Your task to perform on an android device: Open Google Maps Image 0: 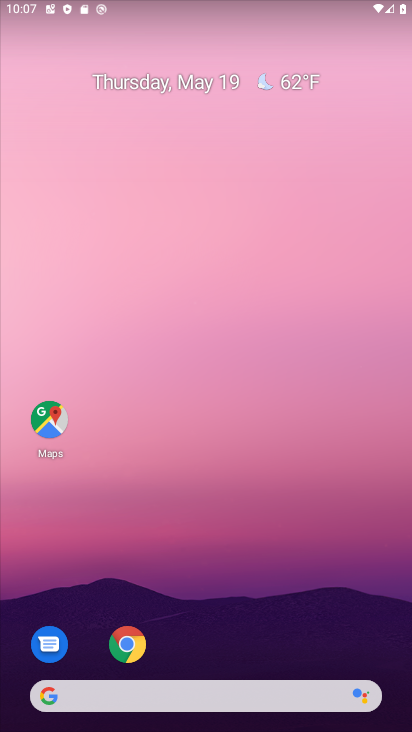
Step 0: drag from (287, 617) to (225, 187)
Your task to perform on an android device: Open Google Maps Image 1: 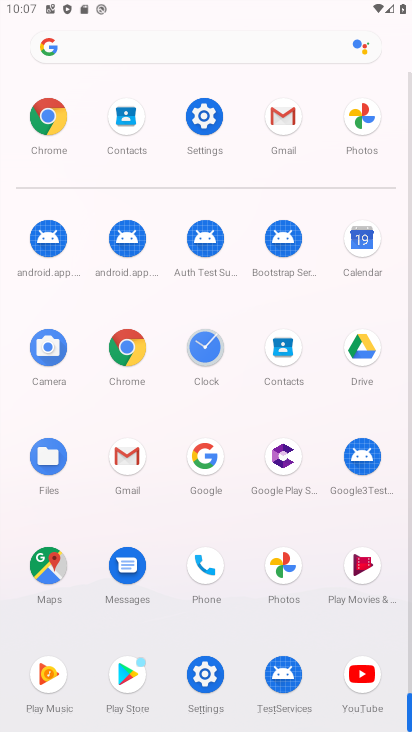
Step 1: click (277, 554)
Your task to perform on an android device: Open Google Maps Image 2: 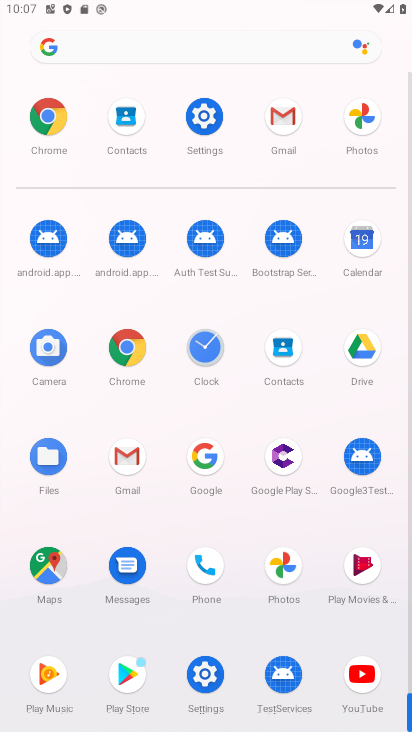
Step 2: click (277, 554)
Your task to perform on an android device: Open Google Maps Image 3: 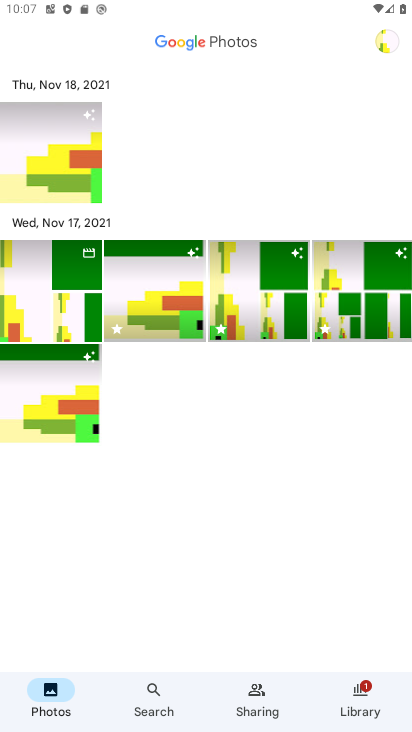
Step 3: press back button
Your task to perform on an android device: Open Google Maps Image 4: 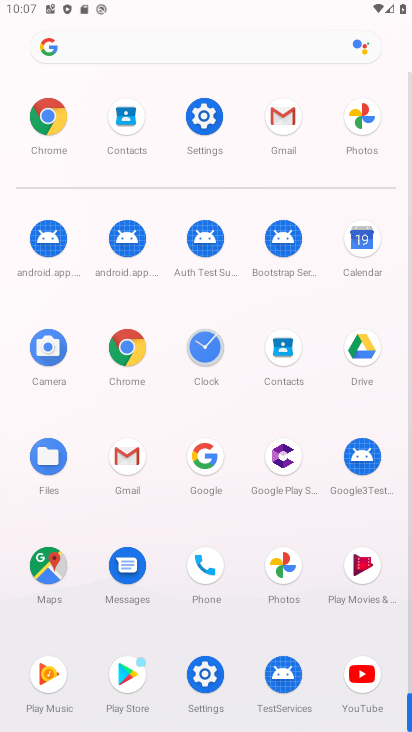
Step 4: click (42, 566)
Your task to perform on an android device: Open Google Maps Image 5: 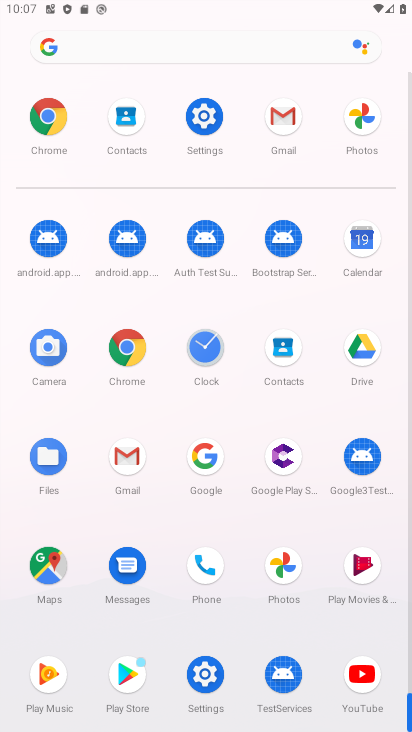
Step 5: drag from (42, 566) to (22, 521)
Your task to perform on an android device: Open Google Maps Image 6: 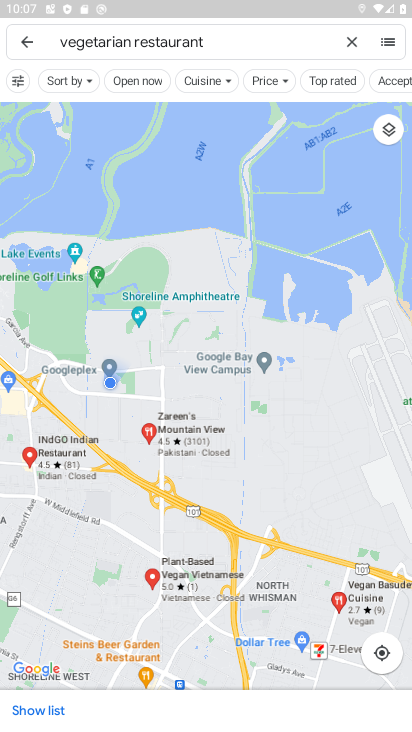
Step 6: click (361, 44)
Your task to perform on an android device: Open Google Maps Image 7: 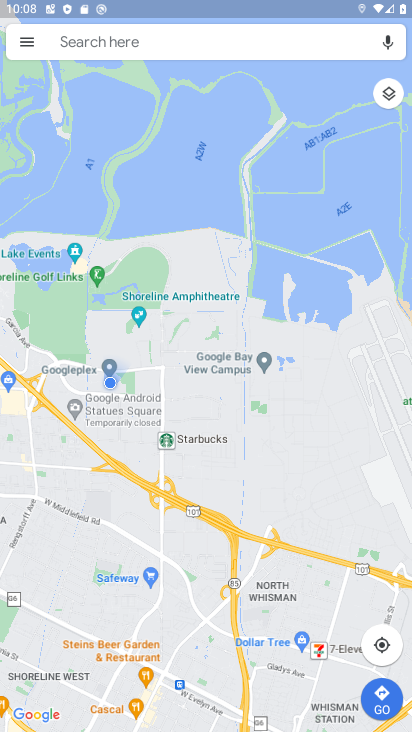
Step 7: task complete